Your task to perform on an android device: Open calendar and show me the fourth week of next month Image 0: 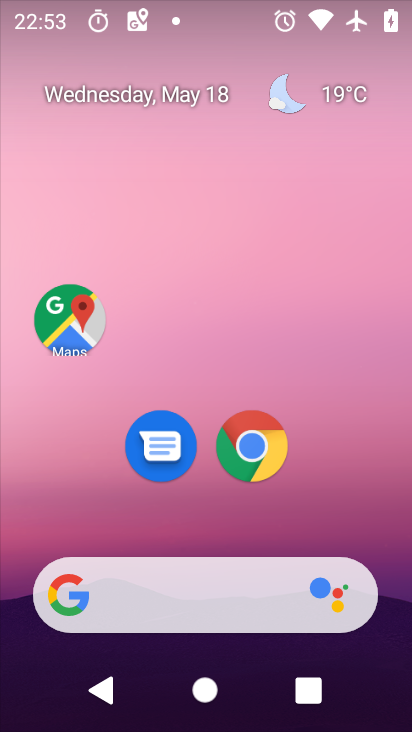
Step 0: press home button
Your task to perform on an android device: Open calendar and show me the fourth week of next month Image 1: 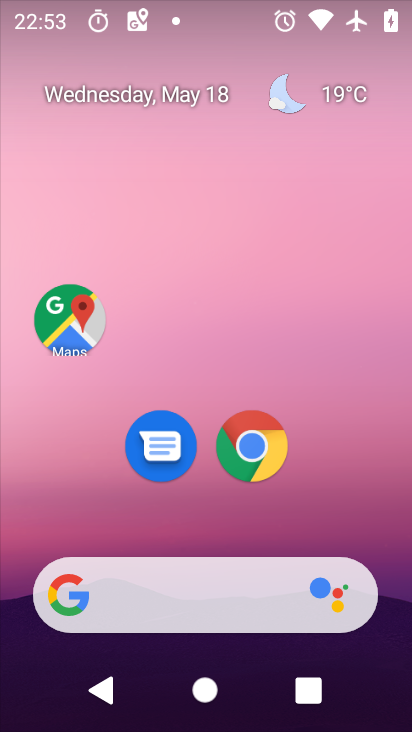
Step 1: drag from (167, 594) to (273, 96)
Your task to perform on an android device: Open calendar and show me the fourth week of next month Image 2: 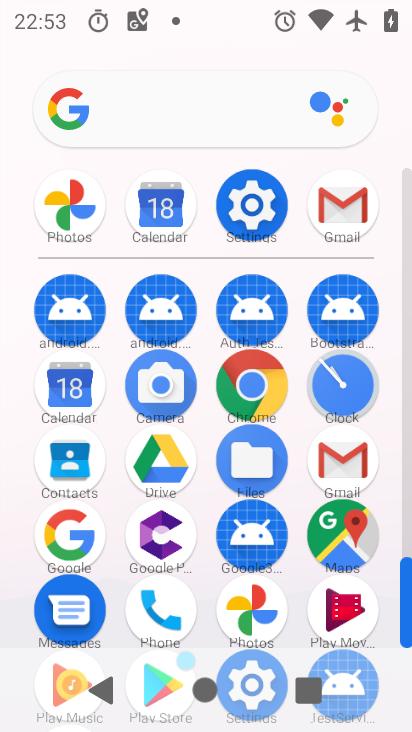
Step 2: click (155, 213)
Your task to perform on an android device: Open calendar and show me the fourth week of next month Image 3: 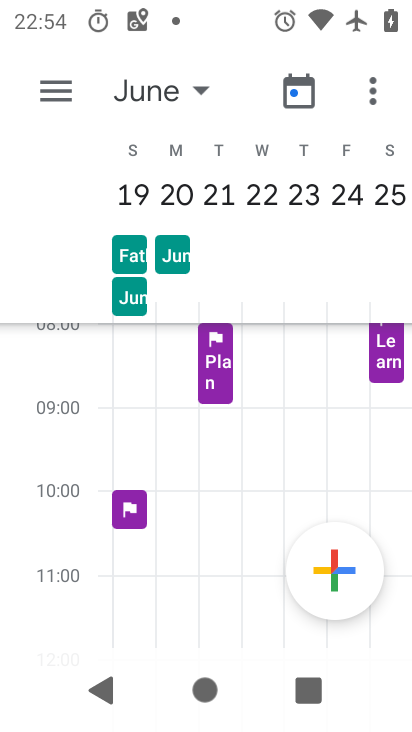
Step 3: task complete